Your task to perform on an android device: See recent photos Image 0: 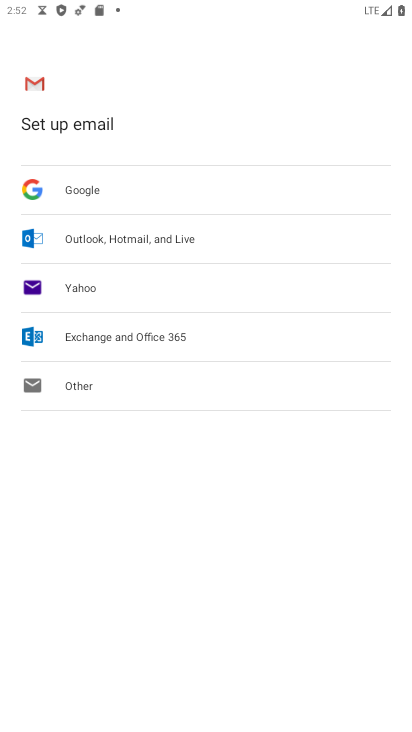
Step 0: press home button
Your task to perform on an android device: See recent photos Image 1: 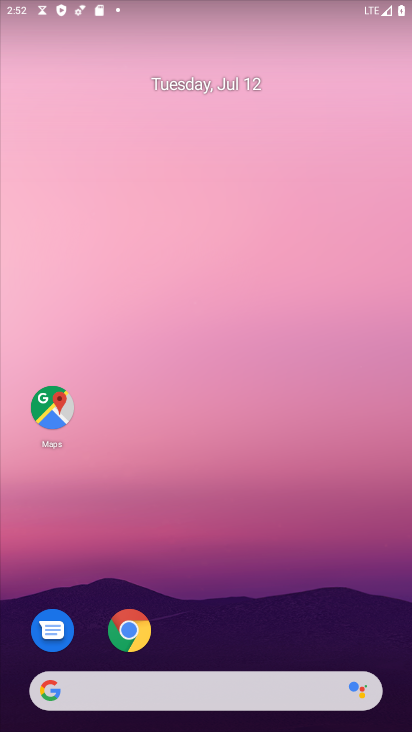
Step 1: drag from (239, 662) to (234, 5)
Your task to perform on an android device: See recent photos Image 2: 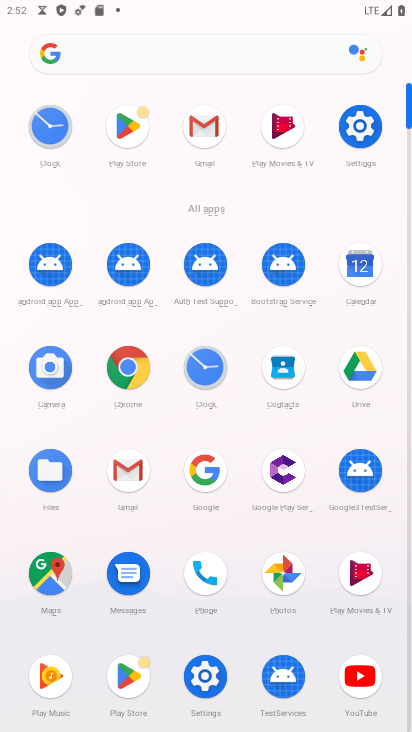
Step 2: click (284, 583)
Your task to perform on an android device: See recent photos Image 3: 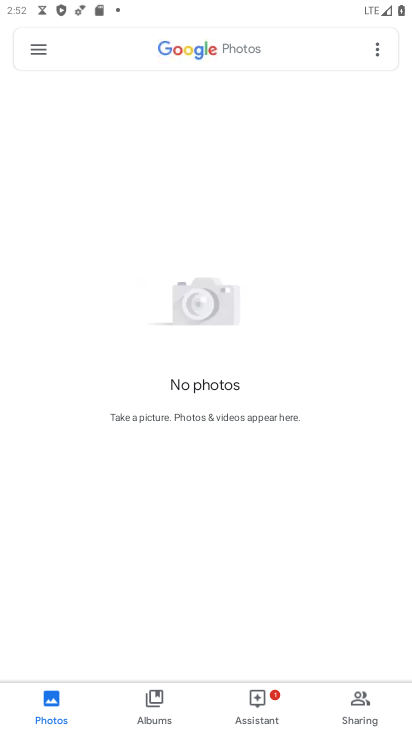
Step 3: task complete